Your task to perform on an android device: Show me popular games on the Play Store Image 0: 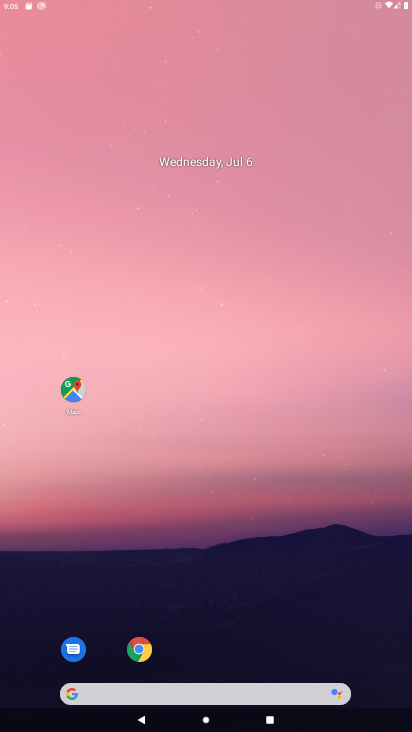
Step 0: drag from (303, 704) to (248, 355)
Your task to perform on an android device: Show me popular games on the Play Store Image 1: 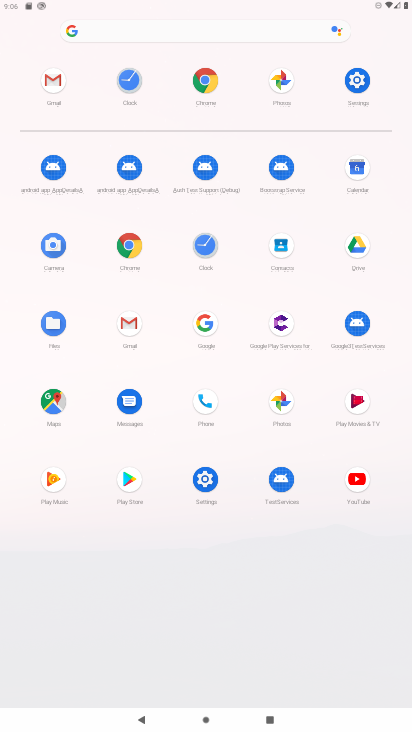
Step 1: click (124, 487)
Your task to perform on an android device: Show me popular games on the Play Store Image 2: 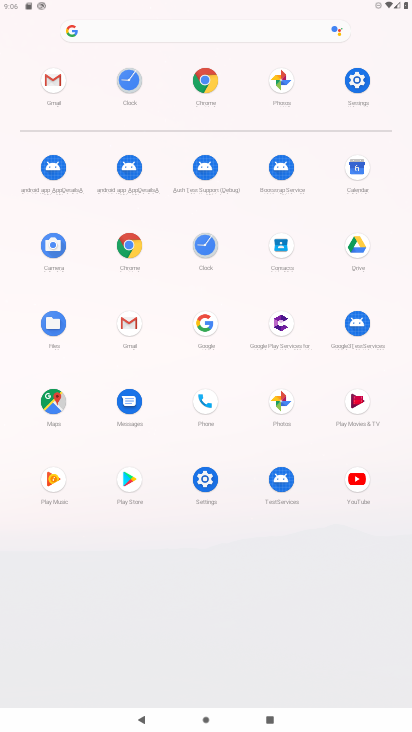
Step 2: click (128, 483)
Your task to perform on an android device: Show me popular games on the Play Store Image 3: 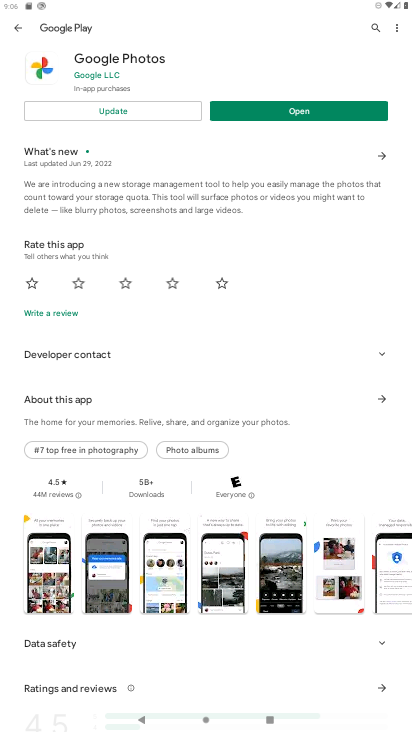
Step 3: click (18, 30)
Your task to perform on an android device: Show me popular games on the Play Store Image 4: 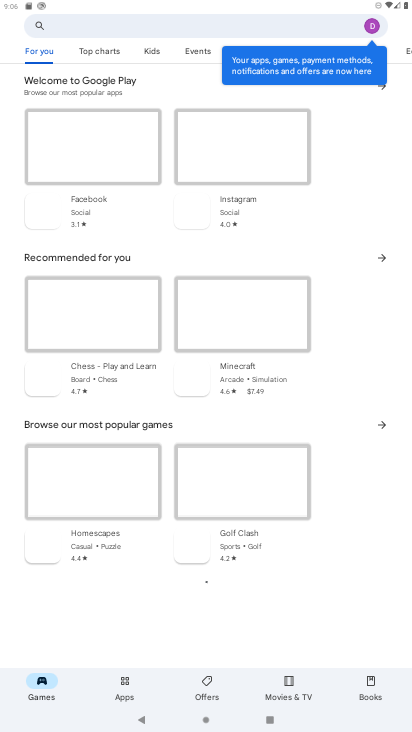
Step 4: click (126, 24)
Your task to perform on an android device: Show me popular games on the Play Store Image 5: 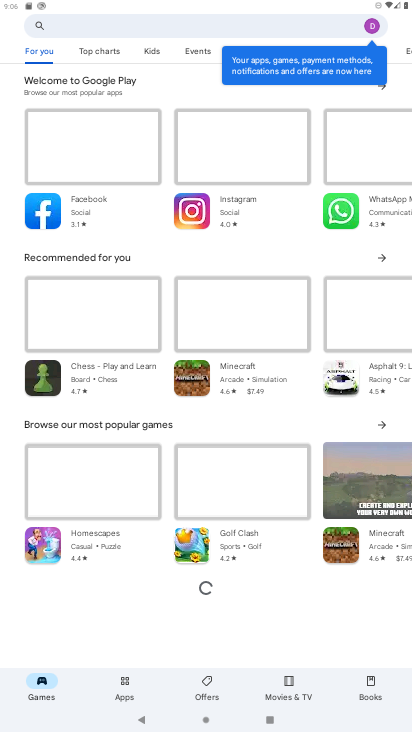
Step 5: click (127, 27)
Your task to perform on an android device: Show me popular games on the Play Store Image 6: 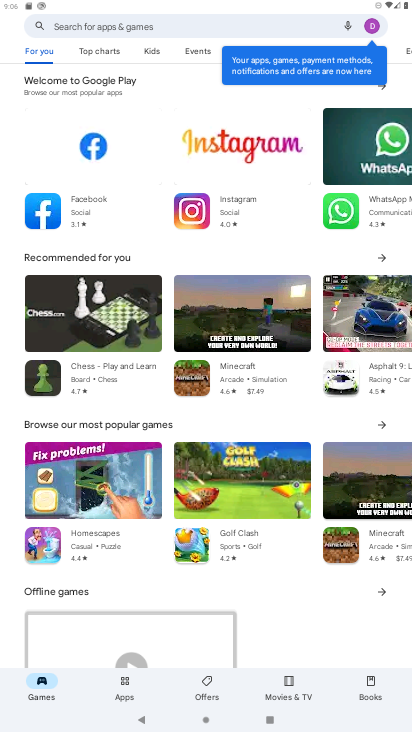
Step 6: click (127, 27)
Your task to perform on an android device: Show me popular games on the Play Store Image 7: 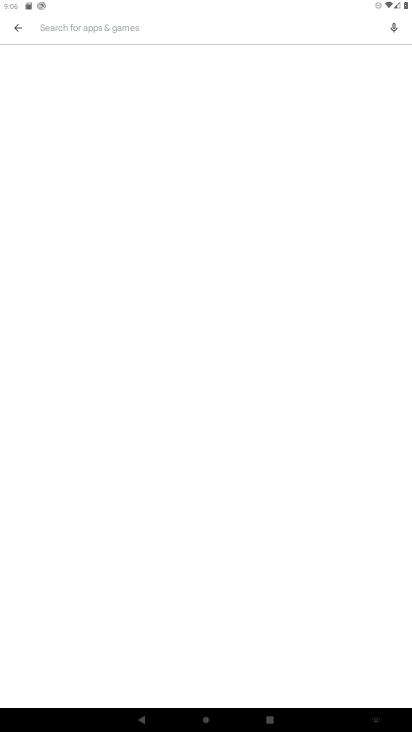
Step 7: type "games"
Your task to perform on an android device: Show me popular games on the Play Store Image 8: 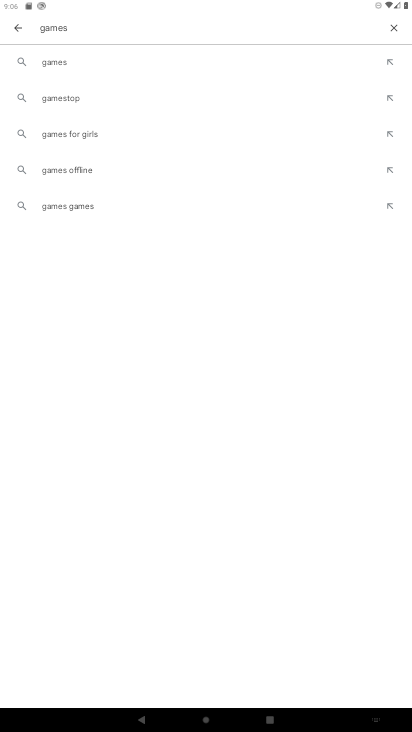
Step 8: click (59, 69)
Your task to perform on an android device: Show me popular games on the Play Store Image 9: 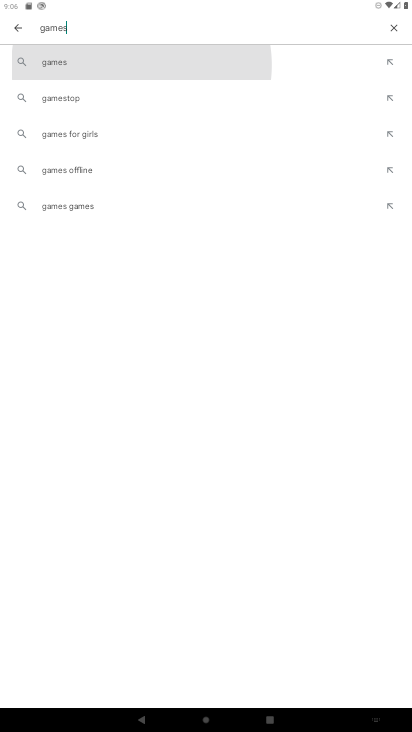
Step 9: click (59, 69)
Your task to perform on an android device: Show me popular games on the Play Store Image 10: 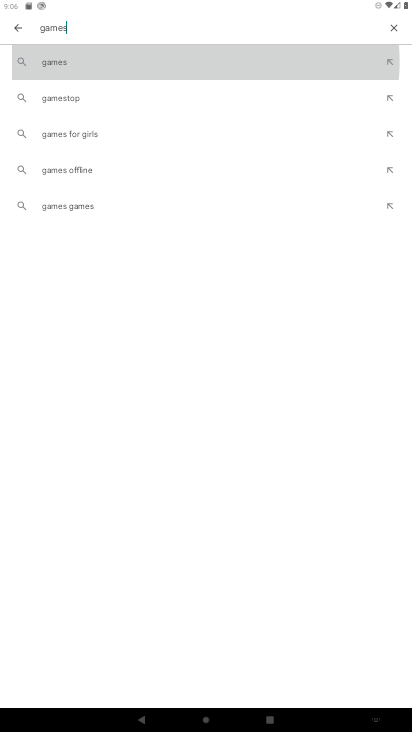
Step 10: click (59, 69)
Your task to perform on an android device: Show me popular games on the Play Store Image 11: 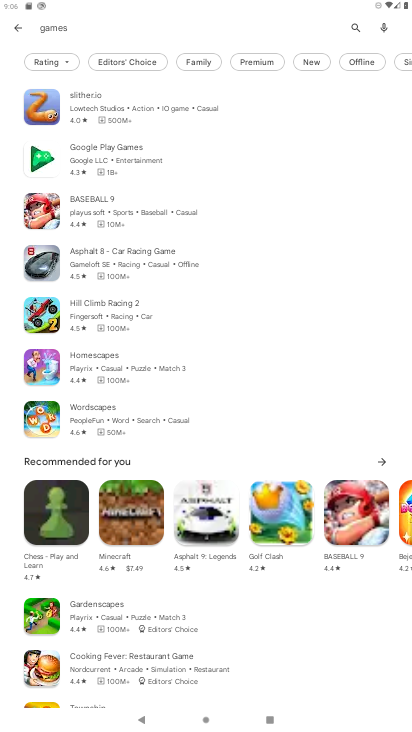
Step 11: drag from (175, 572) to (158, 133)
Your task to perform on an android device: Show me popular games on the Play Store Image 12: 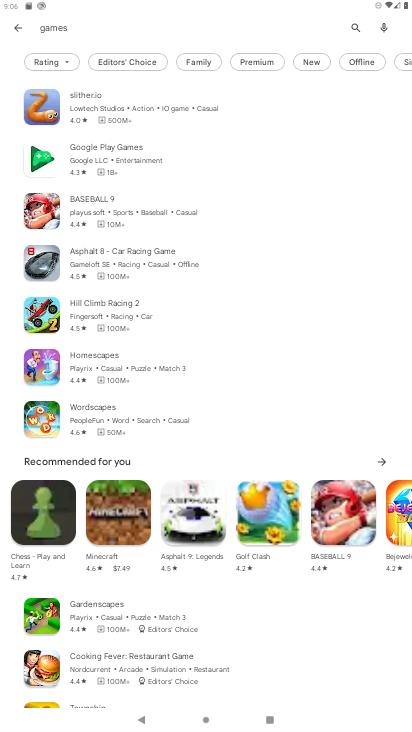
Step 12: drag from (177, 446) to (158, 137)
Your task to perform on an android device: Show me popular games on the Play Store Image 13: 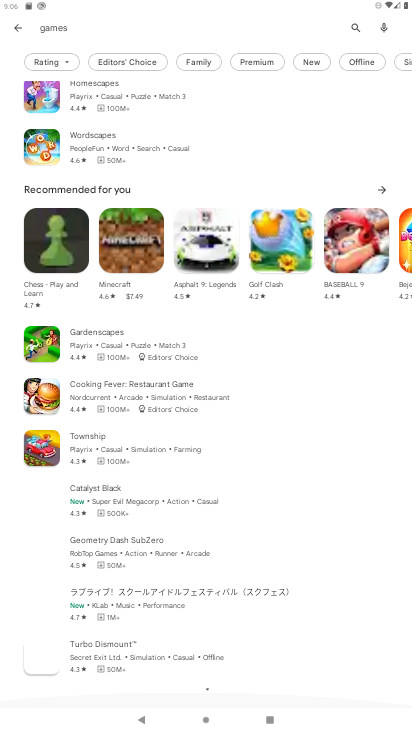
Step 13: drag from (173, 444) to (199, 170)
Your task to perform on an android device: Show me popular games on the Play Store Image 14: 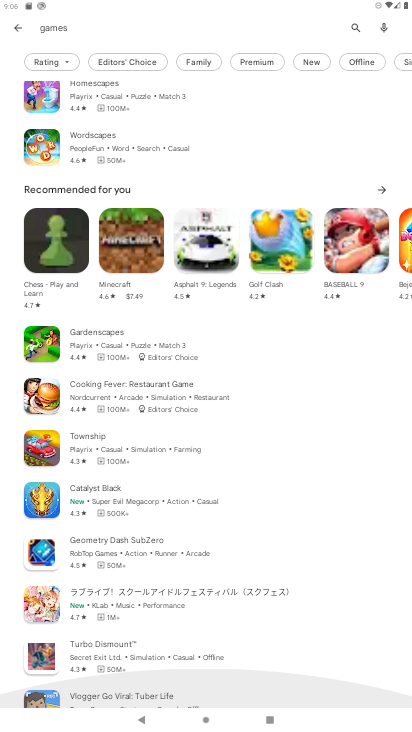
Step 14: drag from (217, 549) to (273, 180)
Your task to perform on an android device: Show me popular games on the Play Store Image 15: 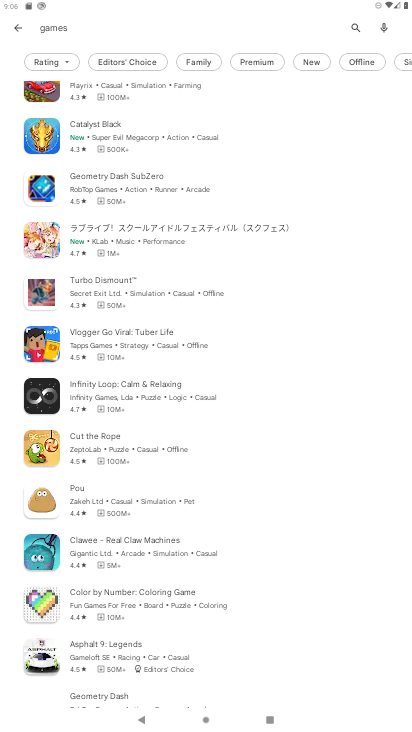
Step 15: drag from (269, 571) to (267, 331)
Your task to perform on an android device: Show me popular games on the Play Store Image 16: 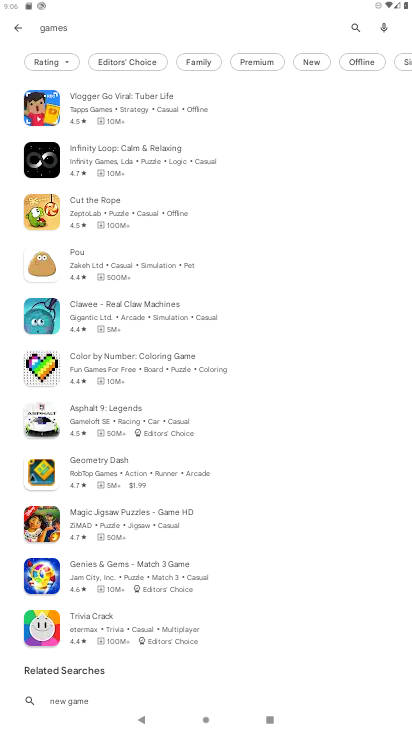
Step 16: drag from (193, 431) to (179, 269)
Your task to perform on an android device: Show me popular games on the Play Store Image 17: 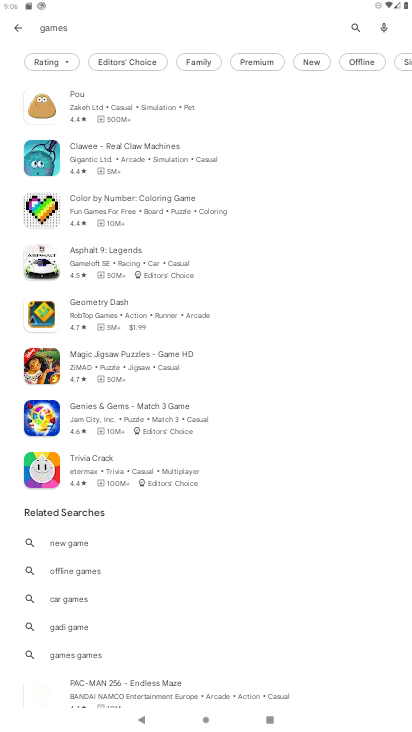
Step 17: click (96, 176)
Your task to perform on an android device: Show me popular games on the Play Store Image 18: 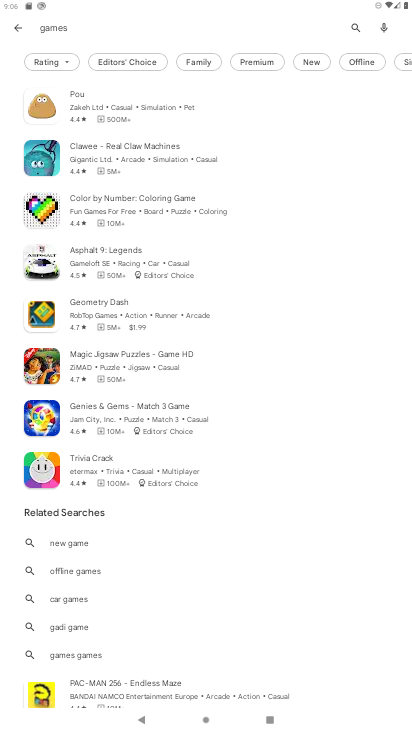
Step 18: task complete